Your task to perform on an android device: Search for vegetarian restaurants on Maps Image 0: 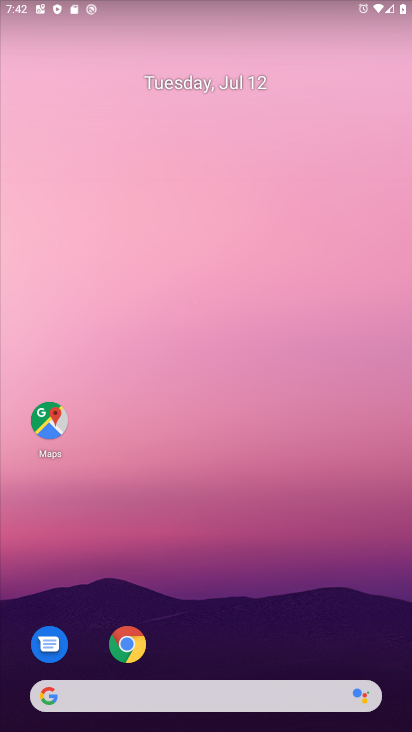
Step 0: click (59, 408)
Your task to perform on an android device: Search for vegetarian restaurants on Maps Image 1: 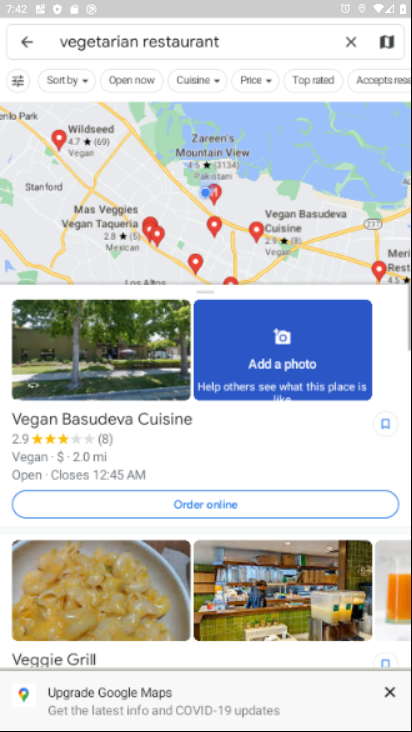
Step 1: task complete